Your task to perform on an android device: toggle improve location accuracy Image 0: 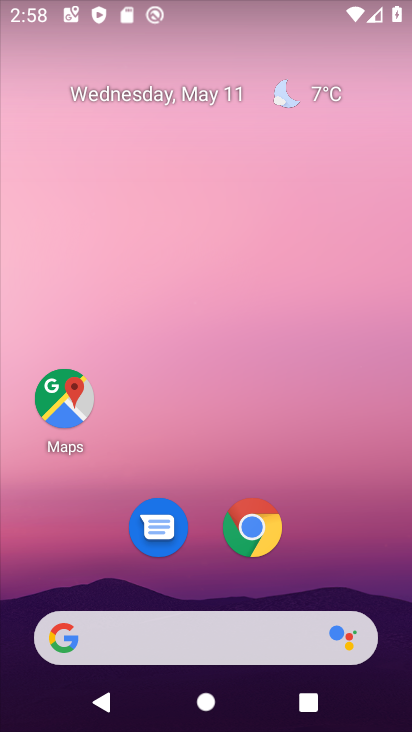
Step 0: drag from (367, 590) to (403, 32)
Your task to perform on an android device: toggle improve location accuracy Image 1: 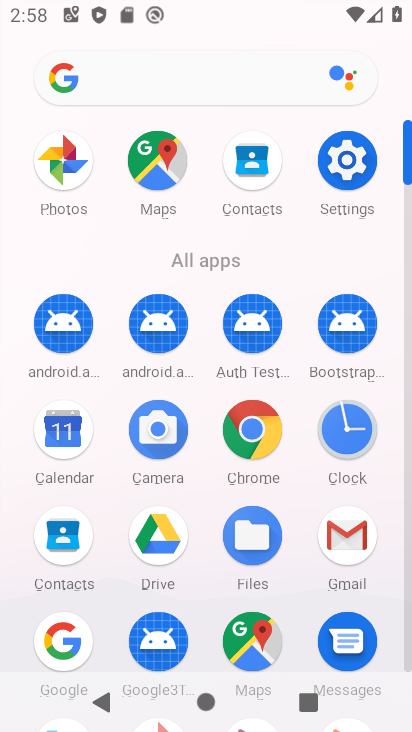
Step 1: click (351, 168)
Your task to perform on an android device: toggle improve location accuracy Image 2: 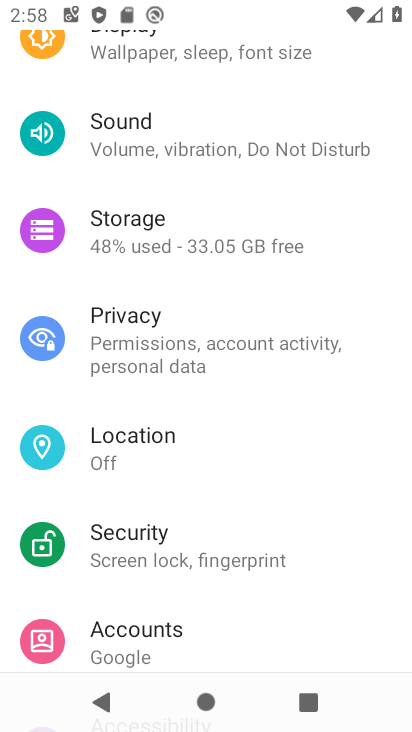
Step 2: drag from (326, 180) to (325, 237)
Your task to perform on an android device: toggle improve location accuracy Image 3: 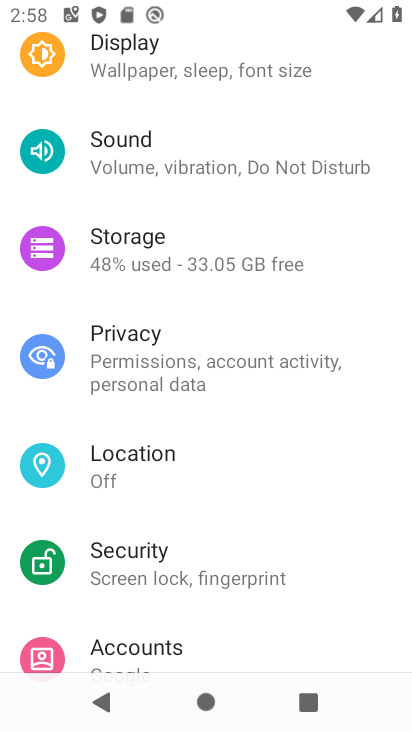
Step 3: click (113, 462)
Your task to perform on an android device: toggle improve location accuracy Image 4: 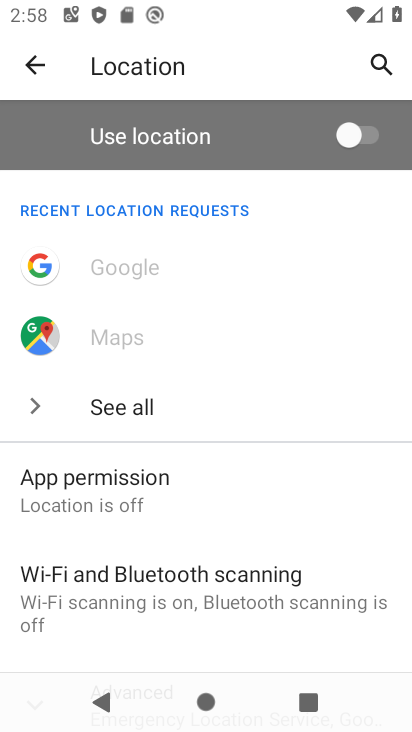
Step 4: drag from (183, 525) to (197, 238)
Your task to perform on an android device: toggle improve location accuracy Image 5: 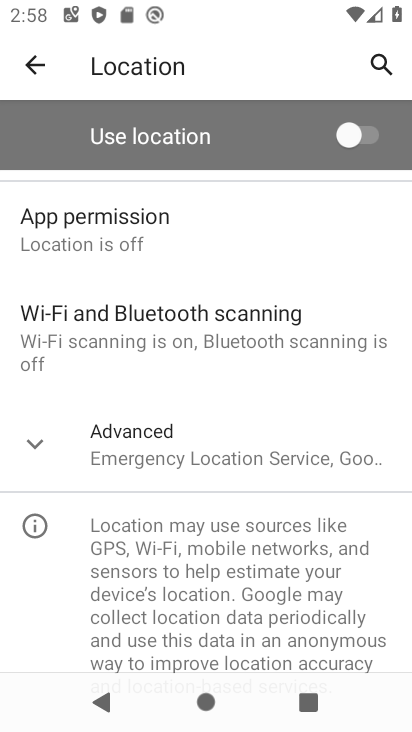
Step 5: click (33, 445)
Your task to perform on an android device: toggle improve location accuracy Image 6: 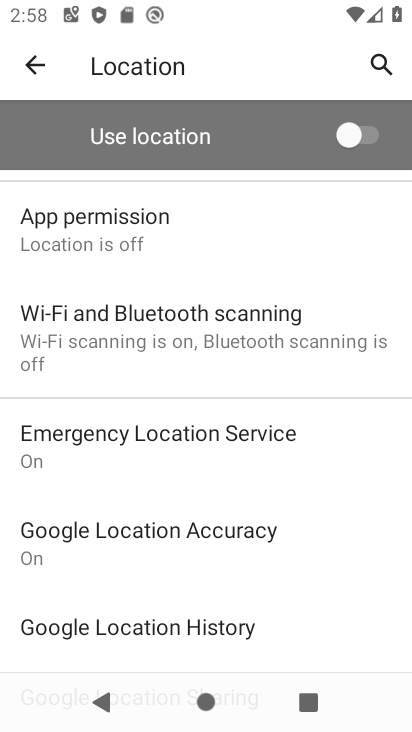
Step 6: click (89, 538)
Your task to perform on an android device: toggle improve location accuracy Image 7: 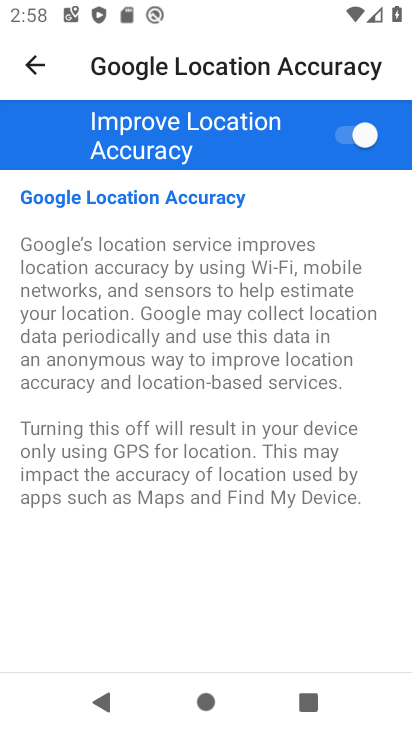
Step 7: click (365, 149)
Your task to perform on an android device: toggle improve location accuracy Image 8: 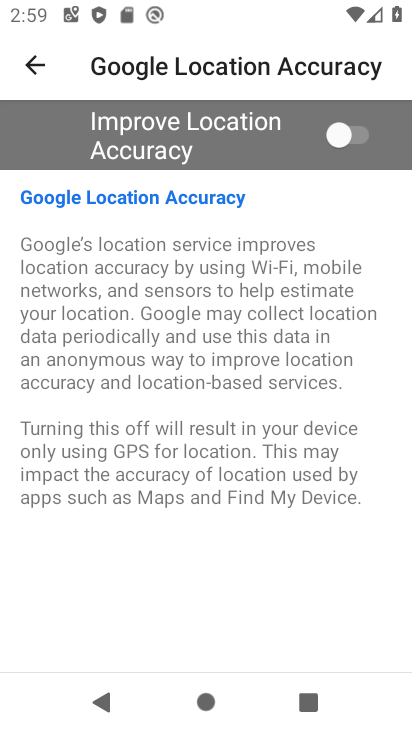
Step 8: task complete